Your task to perform on an android device: turn pop-ups off in chrome Image 0: 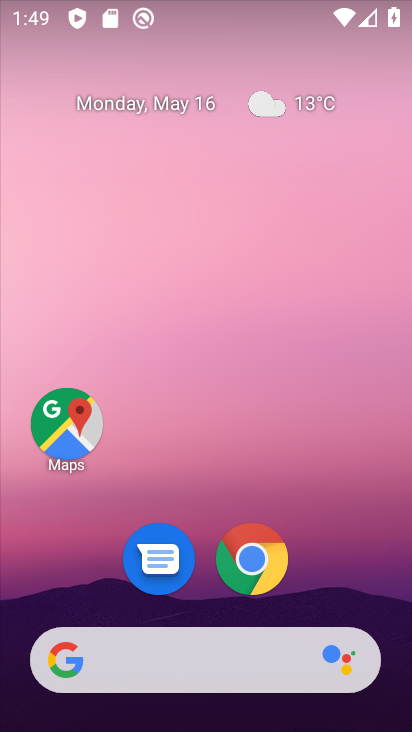
Step 0: click (253, 556)
Your task to perform on an android device: turn pop-ups off in chrome Image 1: 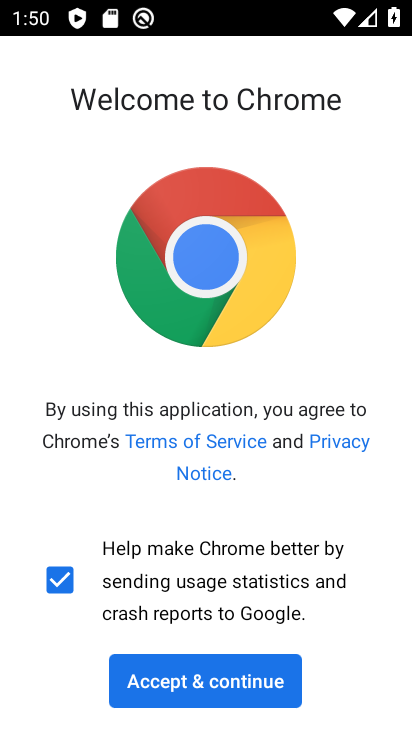
Step 1: click (186, 685)
Your task to perform on an android device: turn pop-ups off in chrome Image 2: 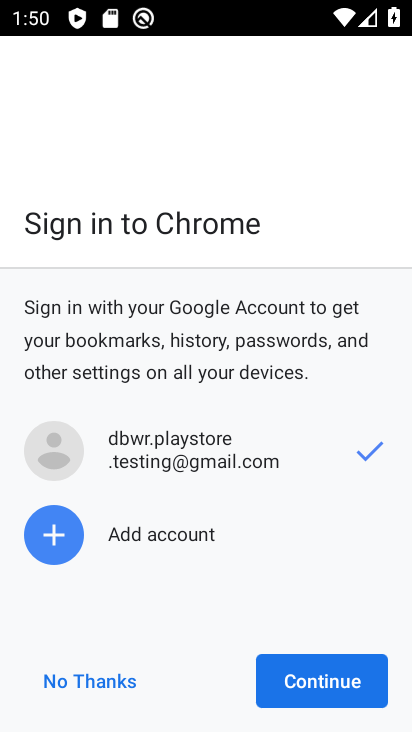
Step 2: click (292, 686)
Your task to perform on an android device: turn pop-ups off in chrome Image 3: 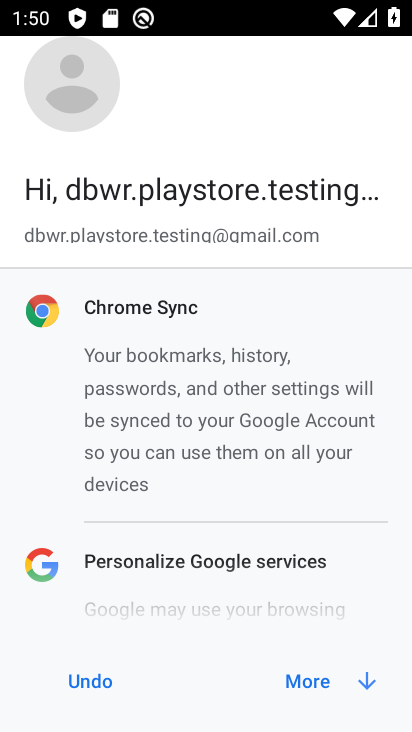
Step 3: click (293, 685)
Your task to perform on an android device: turn pop-ups off in chrome Image 4: 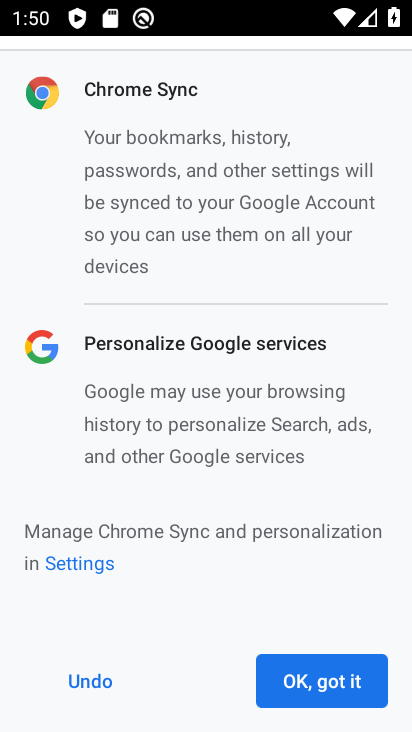
Step 4: click (293, 685)
Your task to perform on an android device: turn pop-ups off in chrome Image 5: 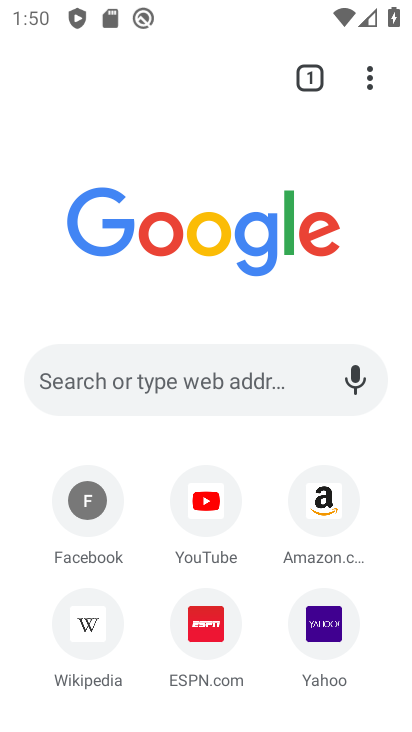
Step 5: click (367, 76)
Your task to perform on an android device: turn pop-ups off in chrome Image 6: 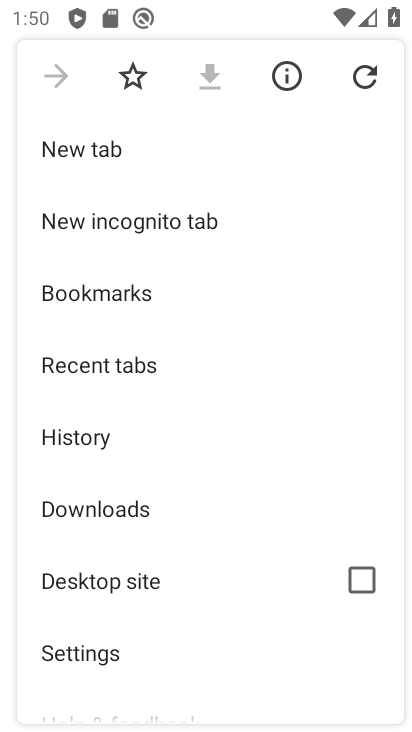
Step 6: click (113, 646)
Your task to perform on an android device: turn pop-ups off in chrome Image 7: 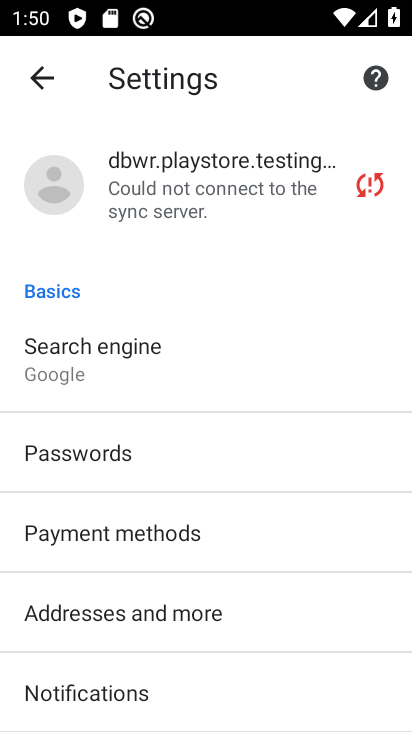
Step 7: drag from (149, 640) to (195, 133)
Your task to perform on an android device: turn pop-ups off in chrome Image 8: 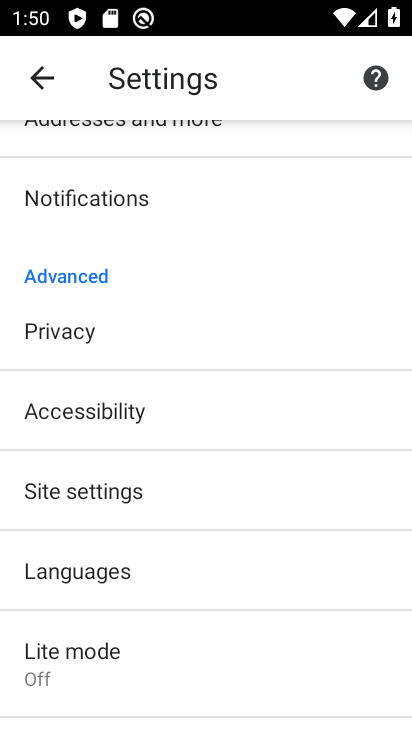
Step 8: click (109, 488)
Your task to perform on an android device: turn pop-ups off in chrome Image 9: 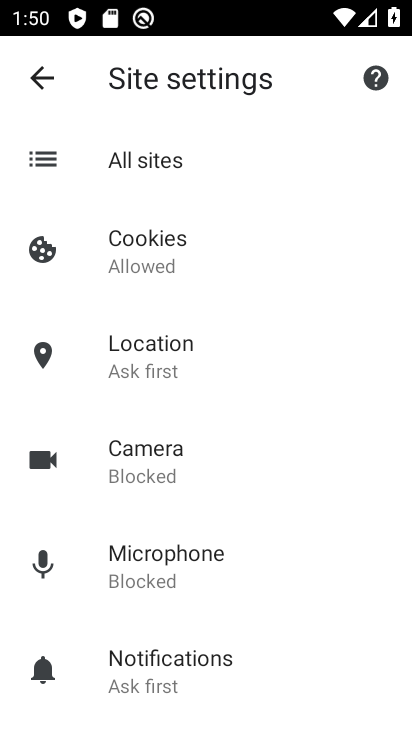
Step 9: drag from (147, 611) to (110, 212)
Your task to perform on an android device: turn pop-ups off in chrome Image 10: 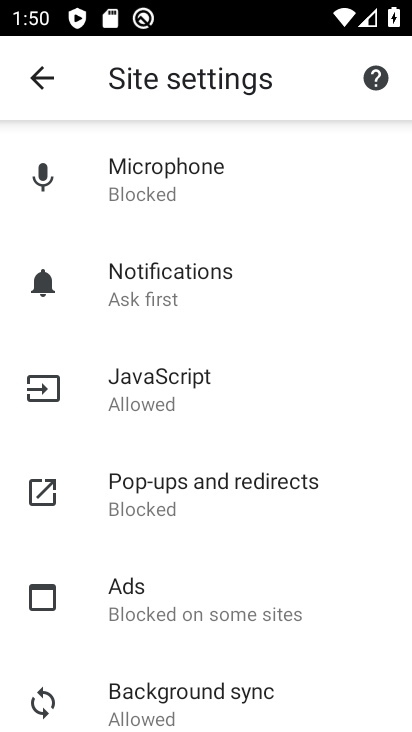
Step 10: click (213, 503)
Your task to perform on an android device: turn pop-ups off in chrome Image 11: 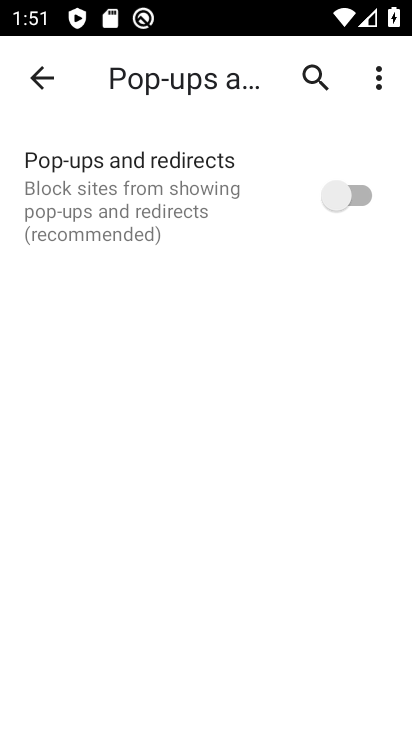
Step 11: task complete